Your task to perform on an android device: Go to ESPN.com Image 0: 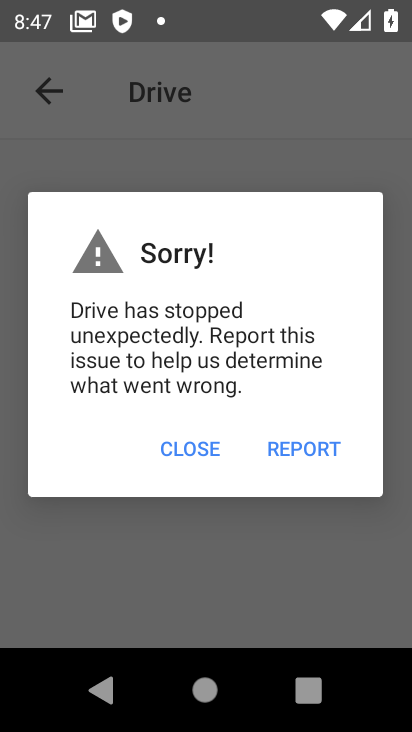
Step 0: press home button
Your task to perform on an android device: Go to ESPN.com Image 1: 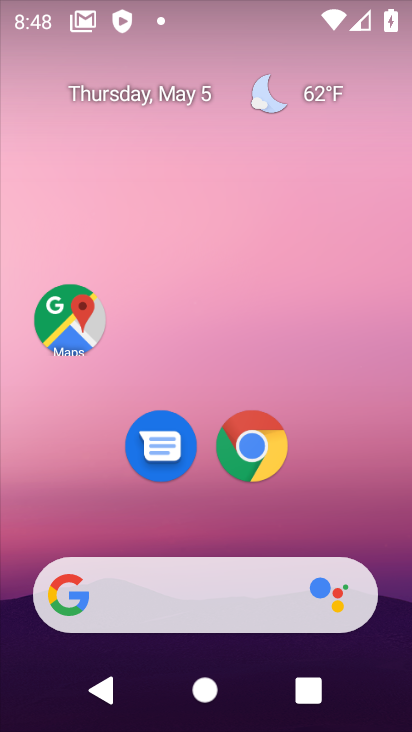
Step 1: drag from (260, 654) to (252, 311)
Your task to perform on an android device: Go to ESPN.com Image 2: 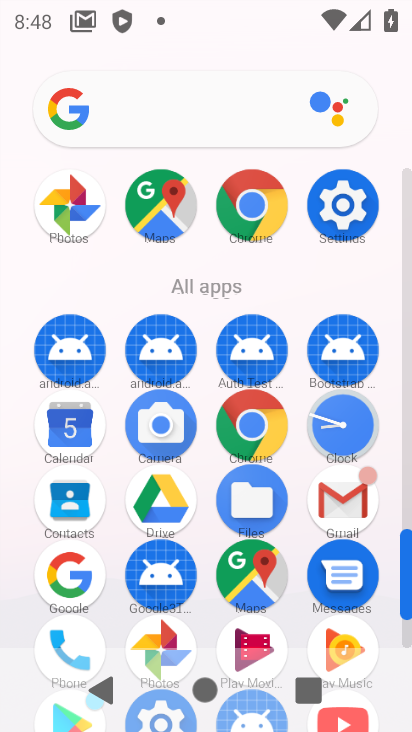
Step 2: click (240, 211)
Your task to perform on an android device: Go to ESPN.com Image 3: 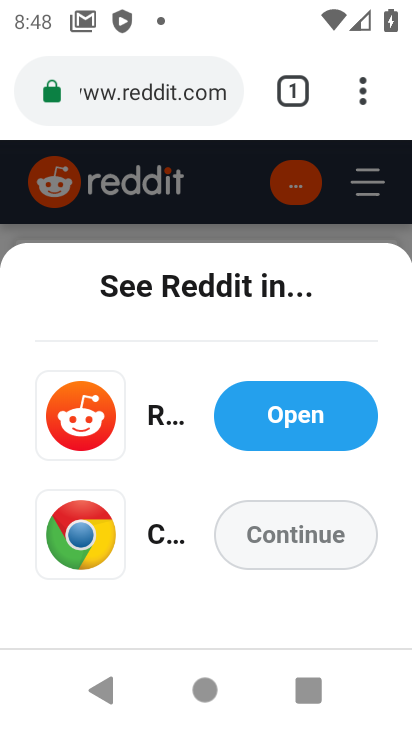
Step 3: click (286, 531)
Your task to perform on an android device: Go to ESPN.com Image 4: 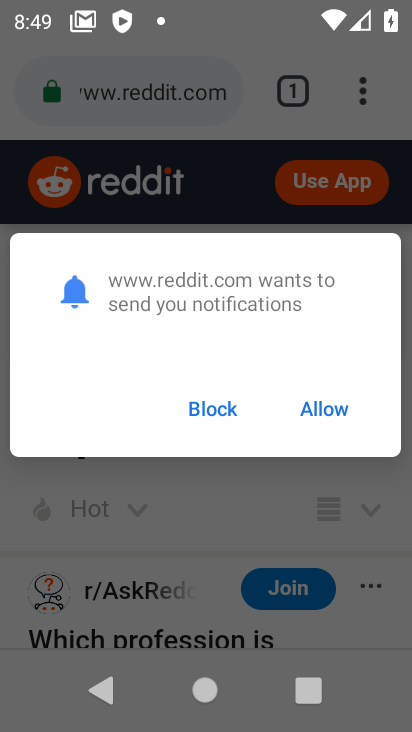
Step 4: click (227, 414)
Your task to perform on an android device: Go to ESPN.com Image 5: 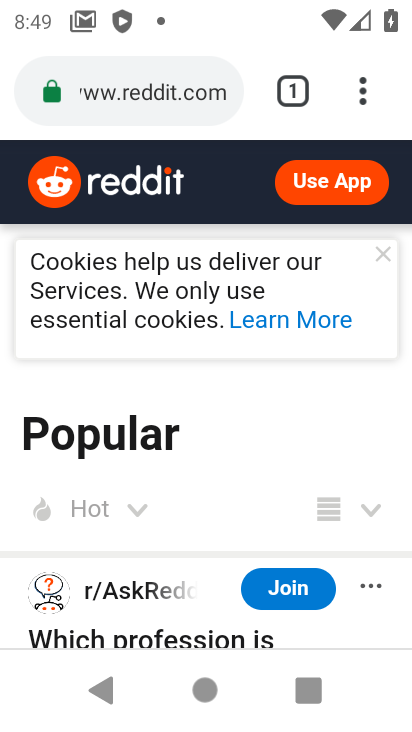
Step 5: task complete